Your task to perform on an android device: Open sound settings Image 0: 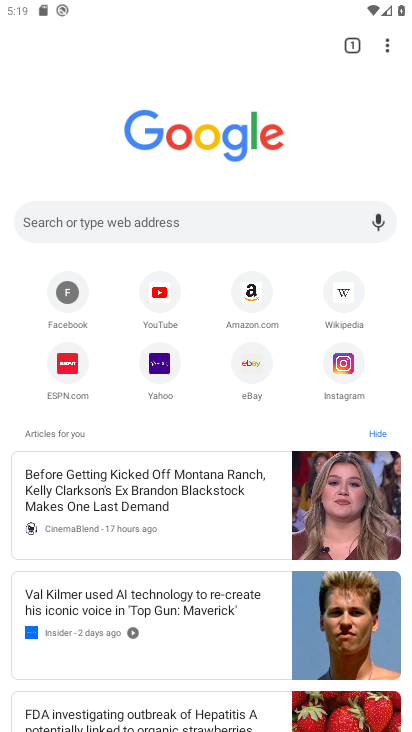
Step 0: press home button
Your task to perform on an android device: Open sound settings Image 1: 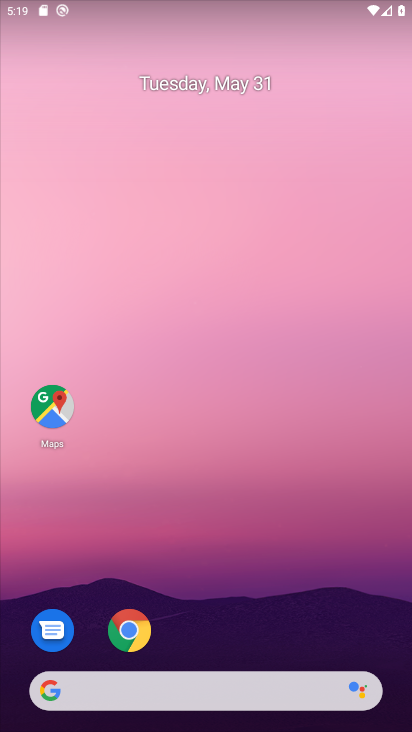
Step 1: drag from (268, 544) to (305, 32)
Your task to perform on an android device: Open sound settings Image 2: 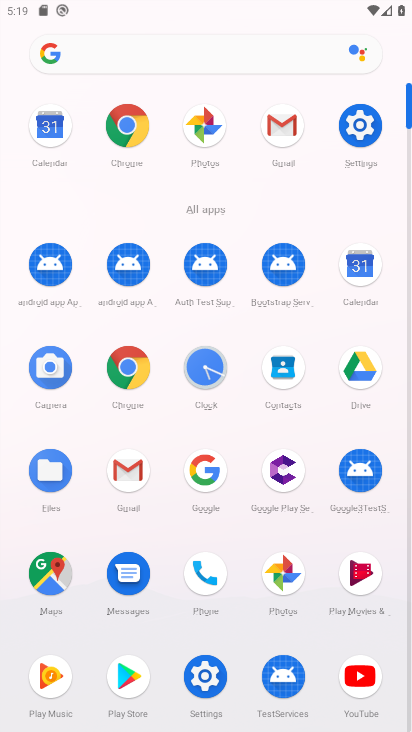
Step 2: click (368, 118)
Your task to perform on an android device: Open sound settings Image 3: 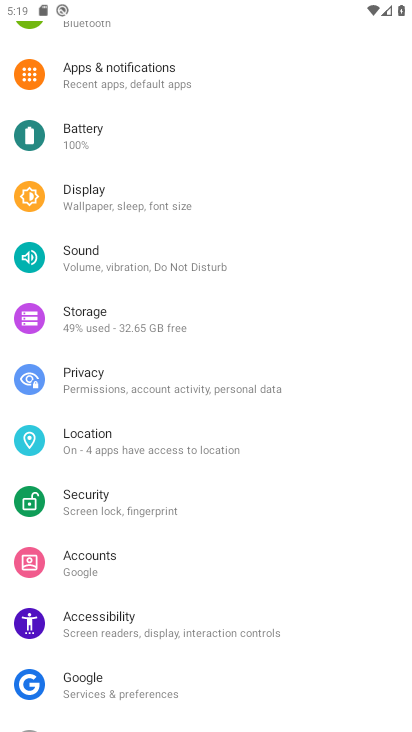
Step 3: click (100, 256)
Your task to perform on an android device: Open sound settings Image 4: 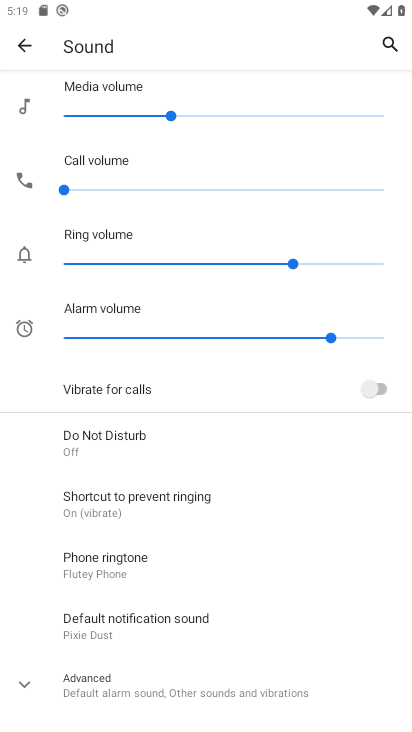
Step 4: task complete